Your task to perform on an android device: Search for "usb-c to usb-b" on bestbuy.com, select the first entry, and add it to the cart. Image 0: 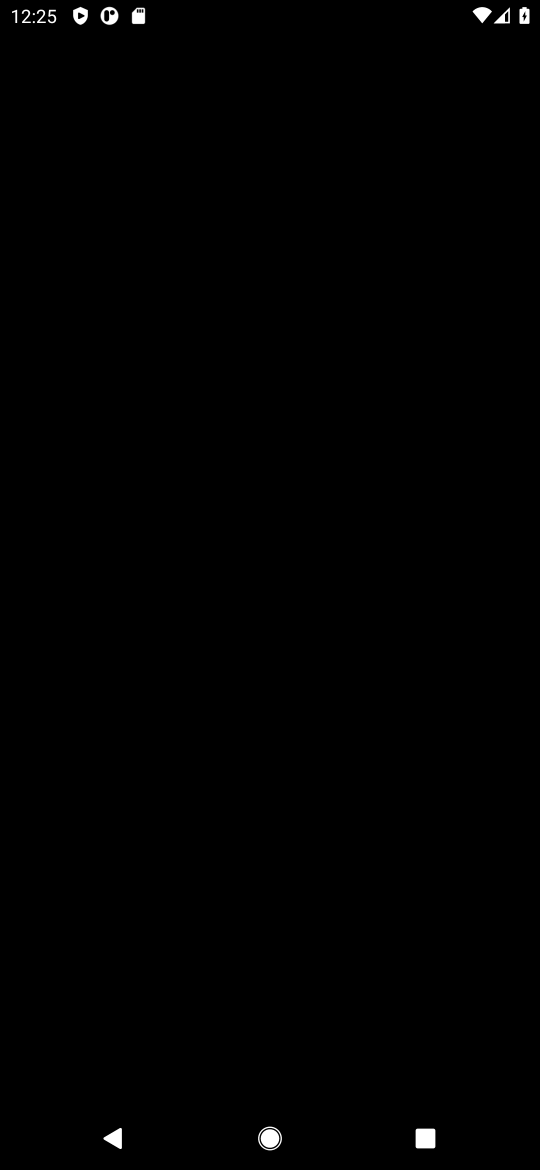
Step 0: press home button
Your task to perform on an android device: Search for "usb-c to usb-b" on bestbuy.com, select the first entry, and add it to the cart. Image 1: 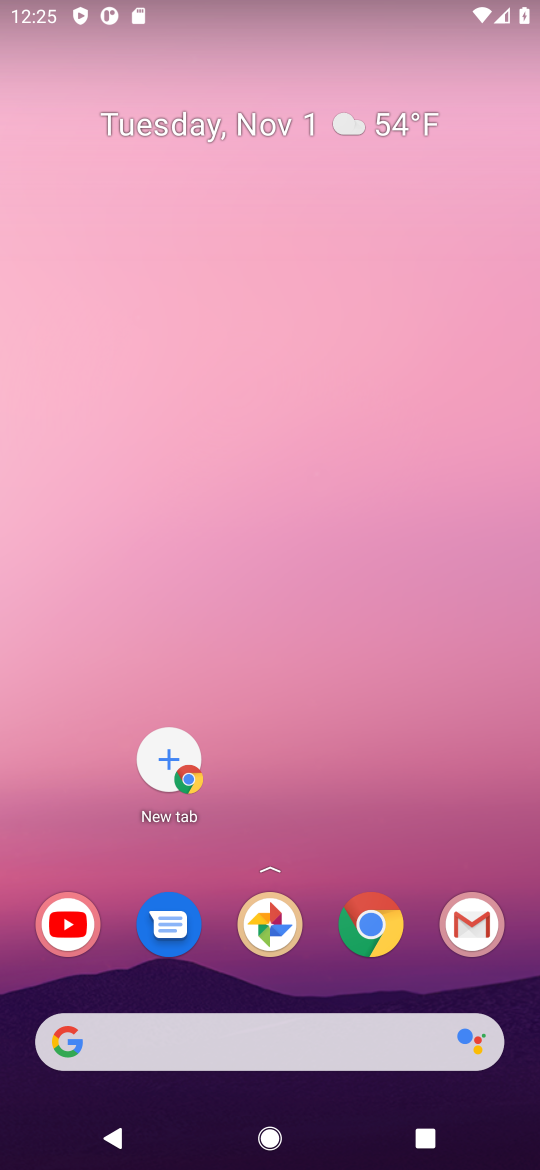
Step 1: click (388, 920)
Your task to perform on an android device: Search for "usb-c to usb-b" on bestbuy.com, select the first entry, and add it to the cart. Image 2: 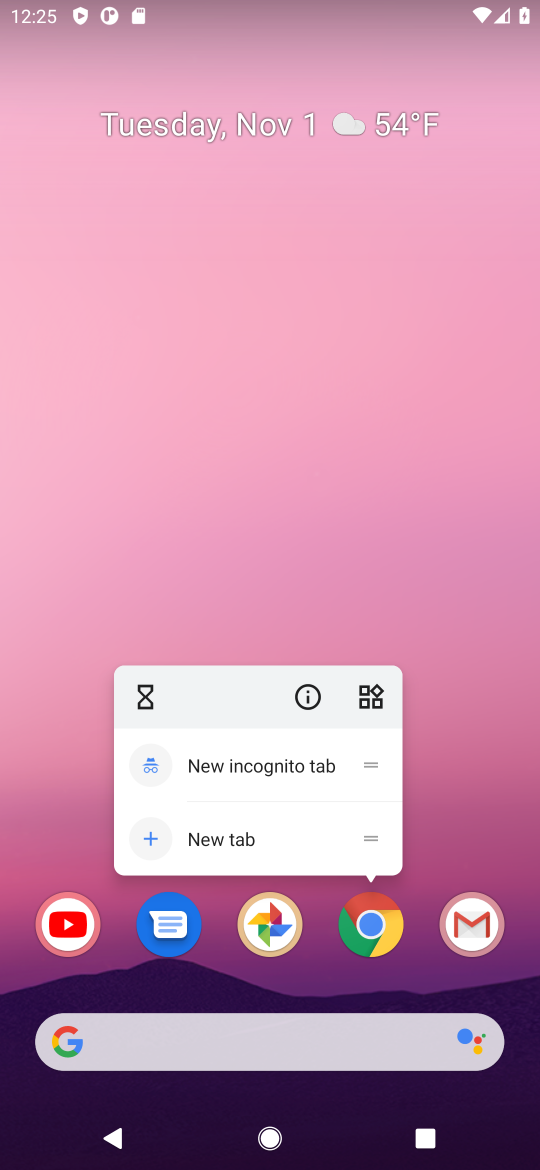
Step 2: click (385, 916)
Your task to perform on an android device: Search for "usb-c to usb-b" on bestbuy.com, select the first entry, and add it to the cart. Image 3: 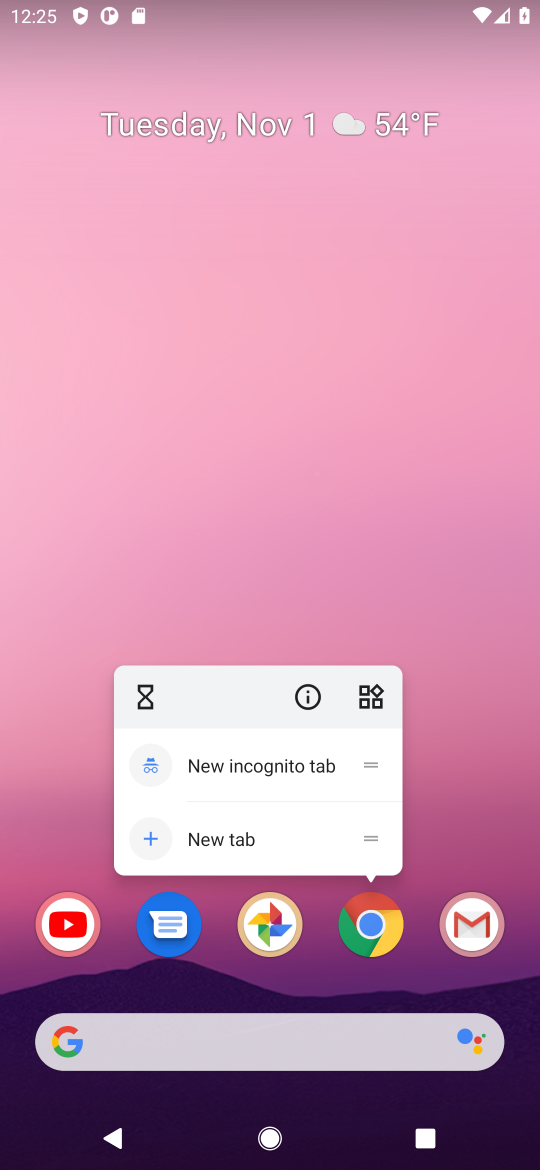
Step 3: click (377, 926)
Your task to perform on an android device: Search for "usb-c to usb-b" on bestbuy.com, select the first entry, and add it to the cart. Image 4: 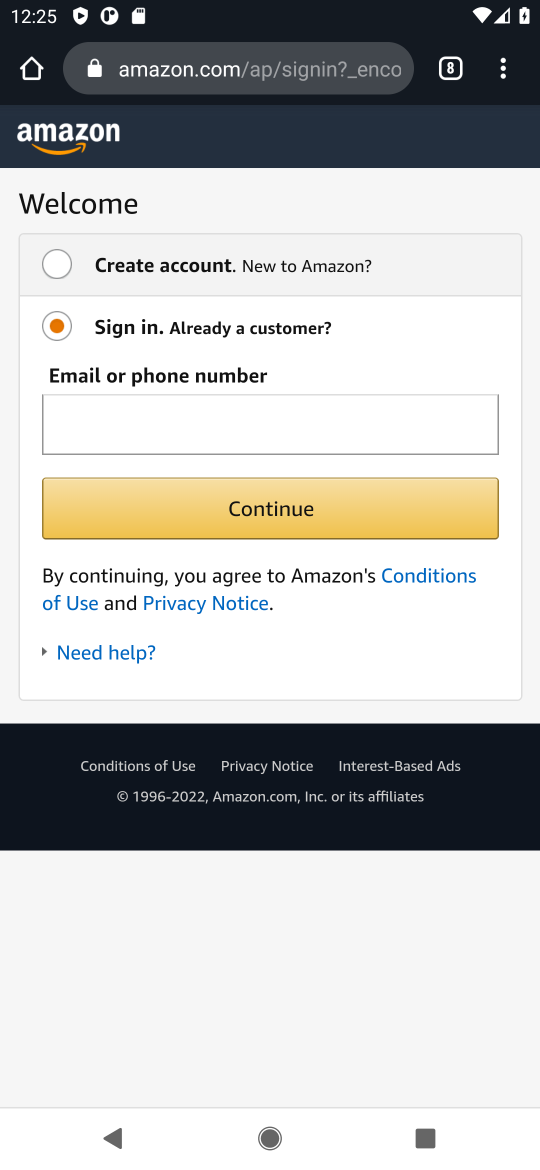
Step 4: click (160, 85)
Your task to perform on an android device: Search for "usb-c to usb-b" on bestbuy.com, select the first entry, and add it to the cart. Image 5: 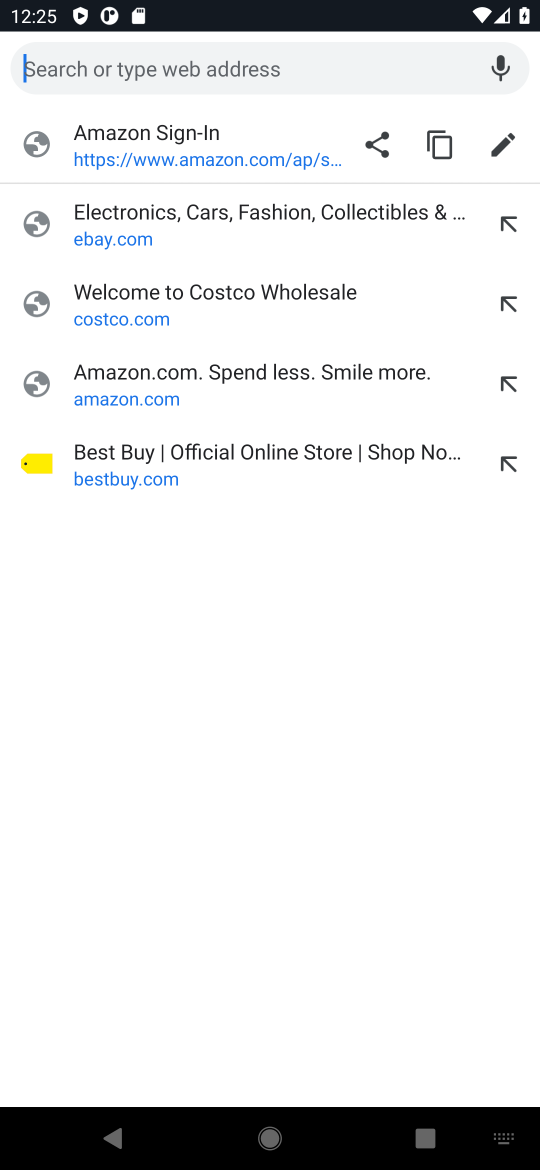
Step 5: click (79, 455)
Your task to perform on an android device: Search for "usb-c to usb-b" on bestbuy.com, select the first entry, and add it to the cart. Image 6: 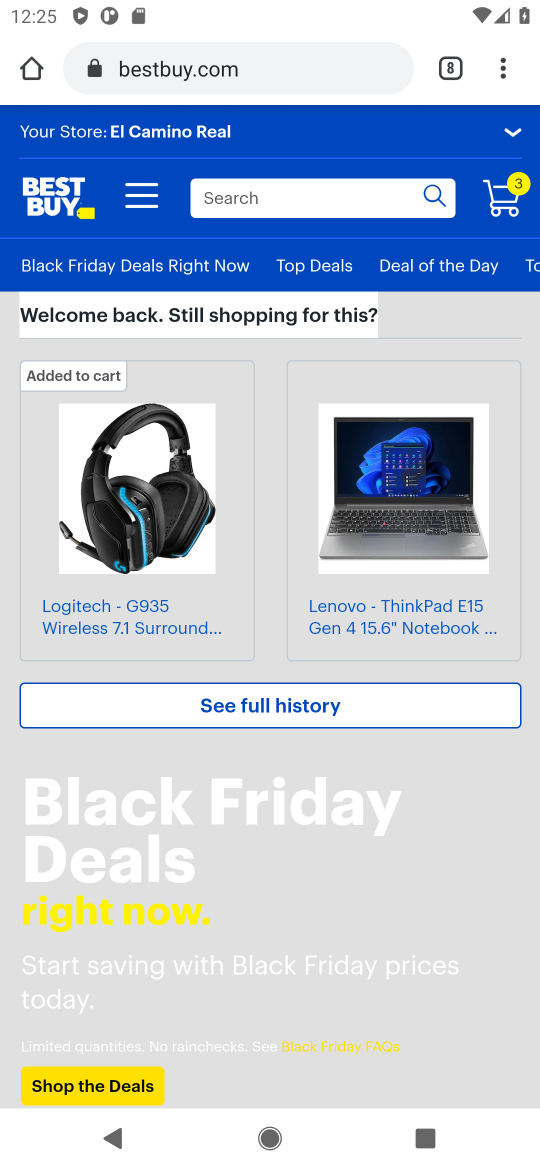
Step 6: click (290, 192)
Your task to perform on an android device: Search for "usb-c to usb-b" on bestbuy.com, select the first entry, and add it to the cart. Image 7: 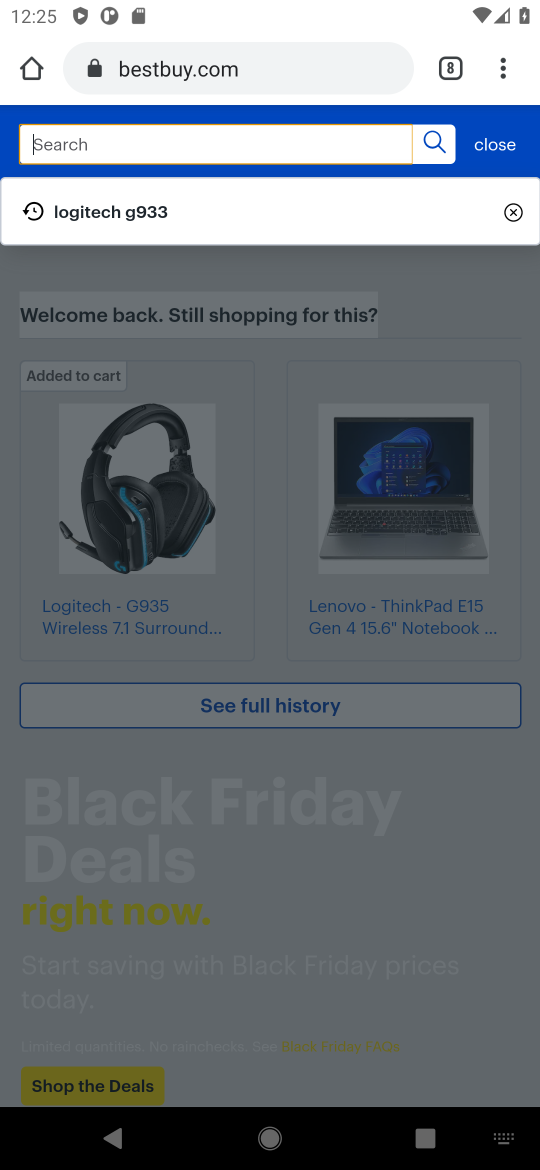
Step 7: type "usb-c to usb b on"
Your task to perform on an android device: Search for "usb-c to usb-b" on bestbuy.com, select the first entry, and add it to the cart. Image 8: 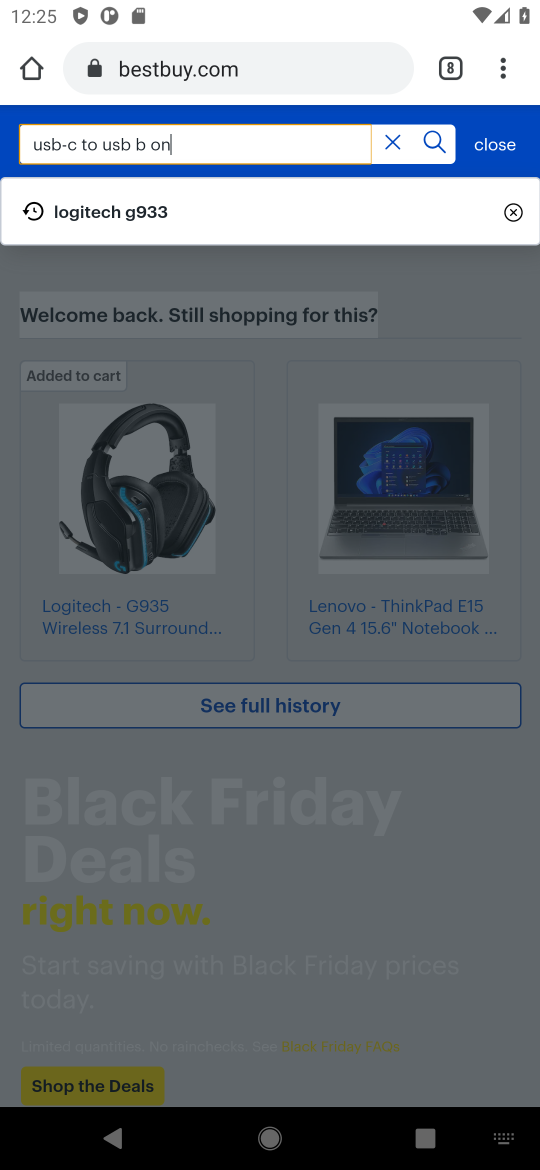
Step 8: type ""
Your task to perform on an android device: Search for "usb-c to usb-b" on bestbuy.com, select the first entry, and add it to the cart. Image 9: 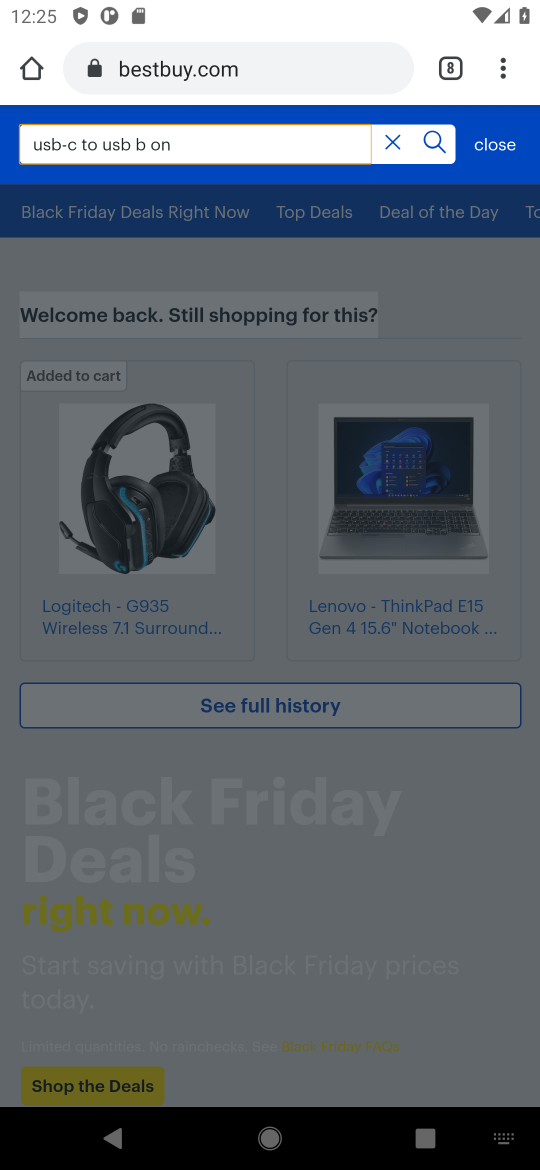
Step 9: click (442, 135)
Your task to perform on an android device: Search for "usb-c to usb-b" on bestbuy.com, select the first entry, and add it to the cart. Image 10: 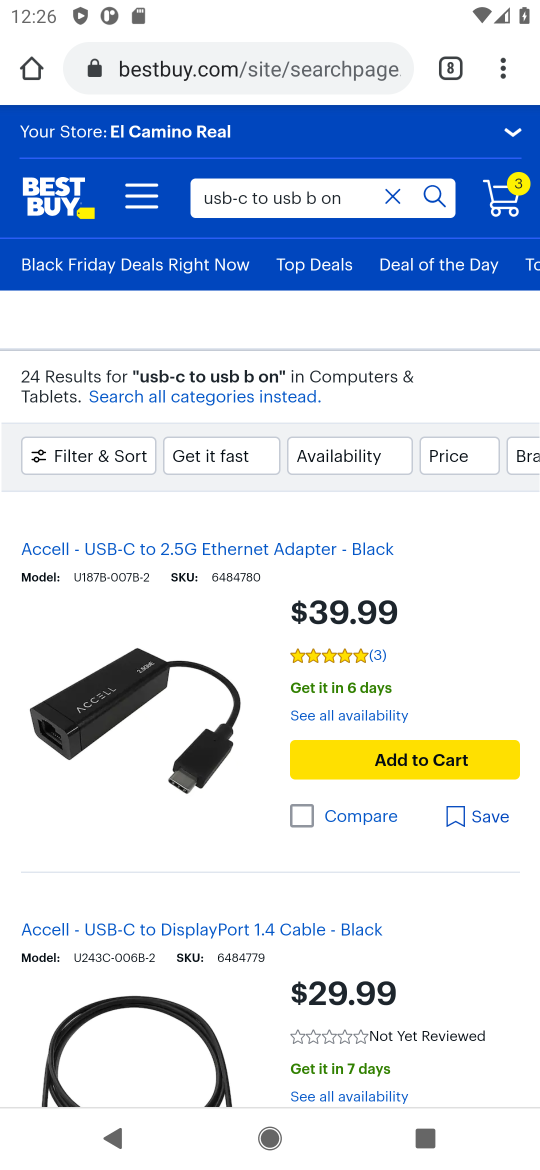
Step 10: drag from (137, 703) to (350, 178)
Your task to perform on an android device: Search for "usb-c to usb-b" on bestbuy.com, select the first entry, and add it to the cart. Image 11: 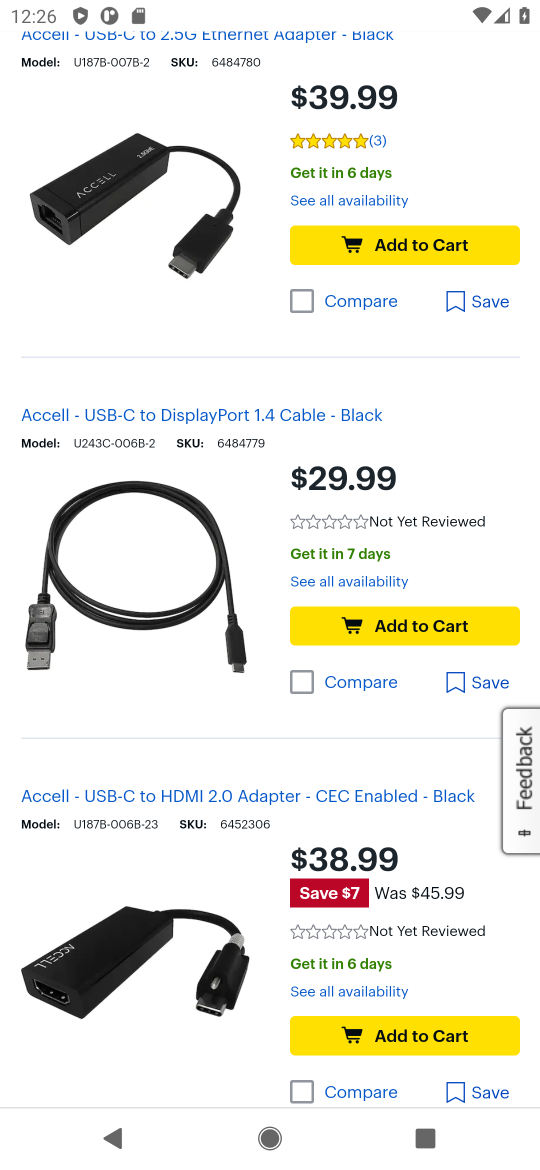
Step 11: drag from (418, 360) to (438, 157)
Your task to perform on an android device: Search for "usb-c to usb-b" on bestbuy.com, select the first entry, and add it to the cart. Image 12: 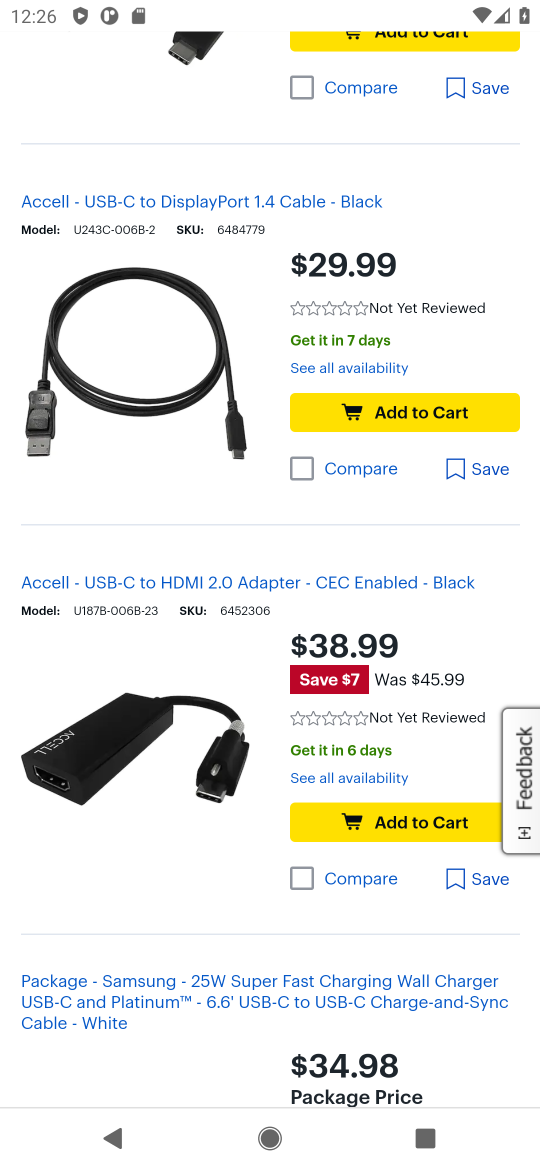
Step 12: drag from (184, 815) to (244, 349)
Your task to perform on an android device: Search for "usb-c to usb-b" on bestbuy.com, select the first entry, and add it to the cart. Image 13: 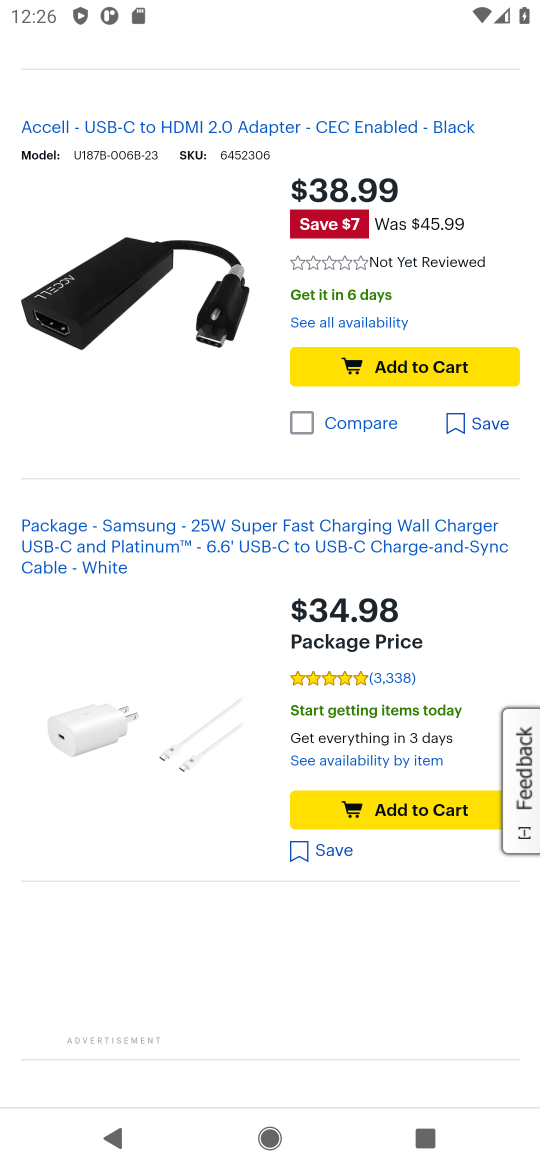
Step 13: drag from (212, 841) to (216, 512)
Your task to perform on an android device: Search for "usb-c to usb-b" on bestbuy.com, select the first entry, and add it to the cart. Image 14: 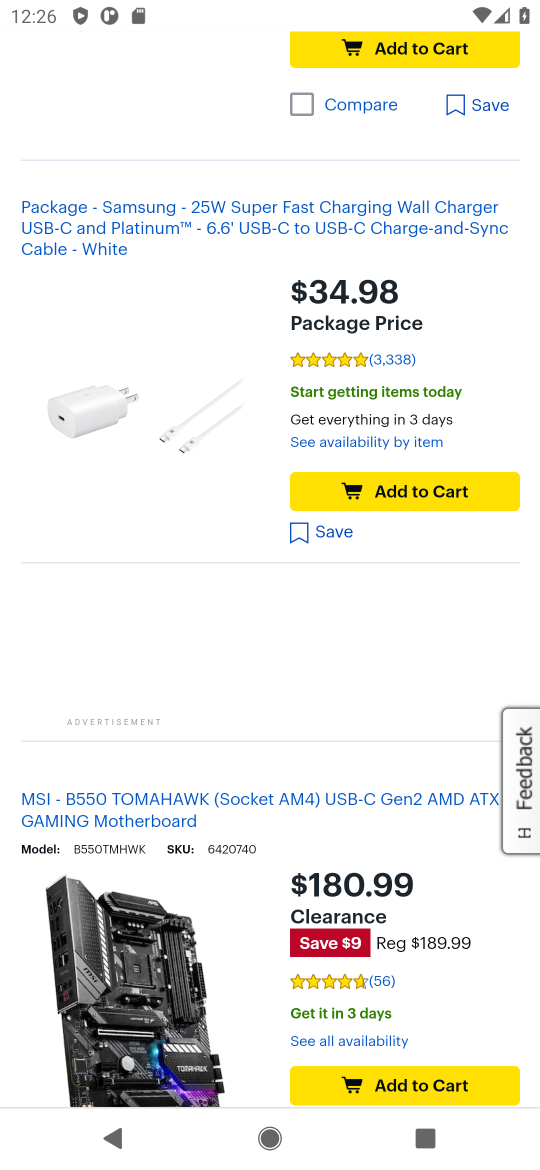
Step 14: drag from (255, 933) to (322, 481)
Your task to perform on an android device: Search for "usb-c to usb-b" on bestbuy.com, select the first entry, and add it to the cart. Image 15: 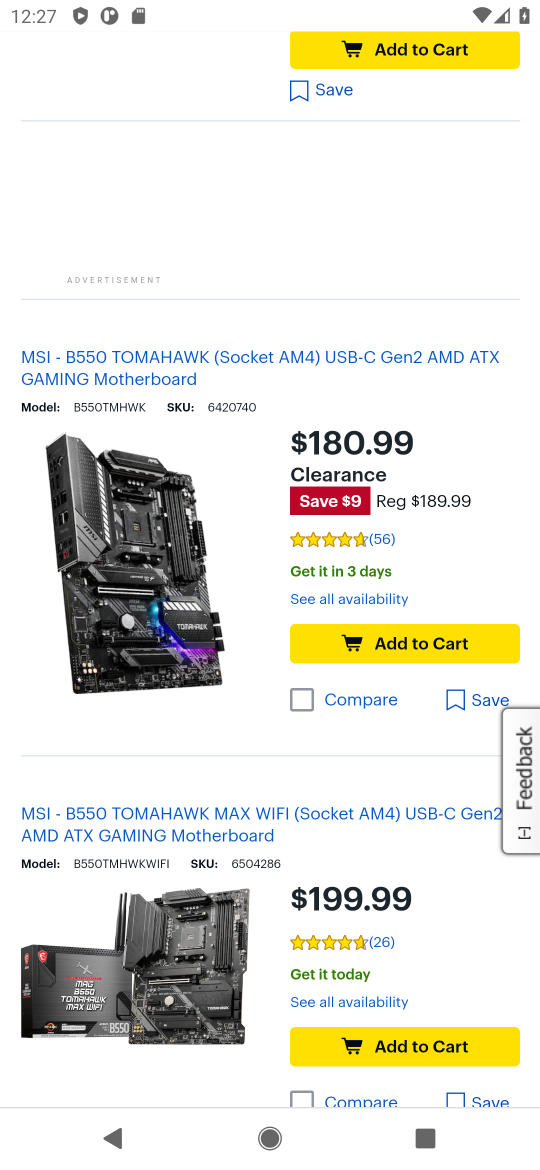
Step 15: drag from (236, 459) to (223, 1060)
Your task to perform on an android device: Search for "usb-c to usb-b" on bestbuy.com, select the first entry, and add it to the cart. Image 16: 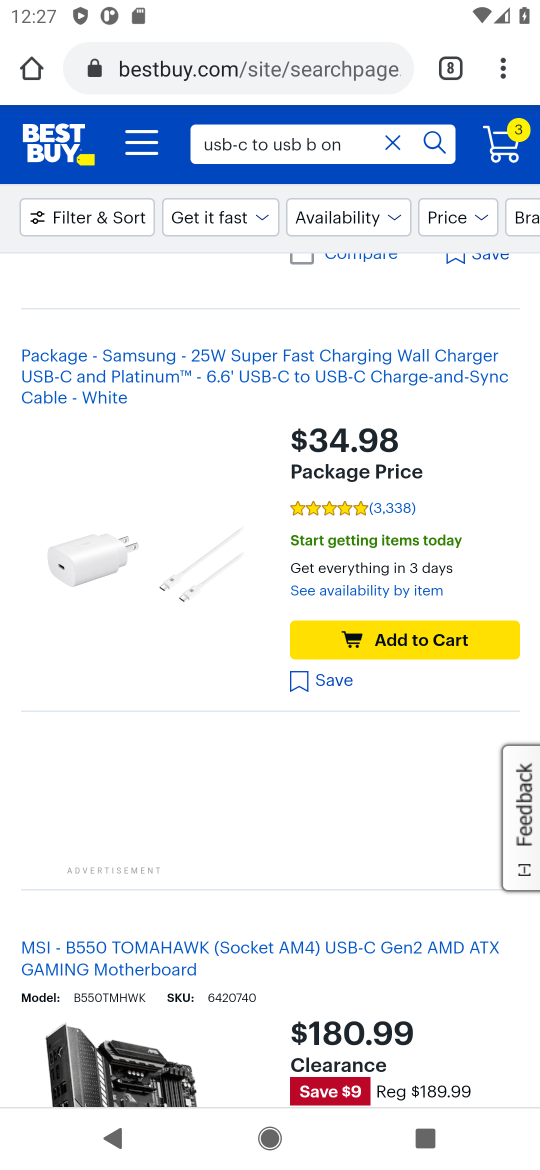
Step 16: click (222, 519)
Your task to perform on an android device: Search for "usb-c to usb-b" on bestbuy.com, select the first entry, and add it to the cart. Image 17: 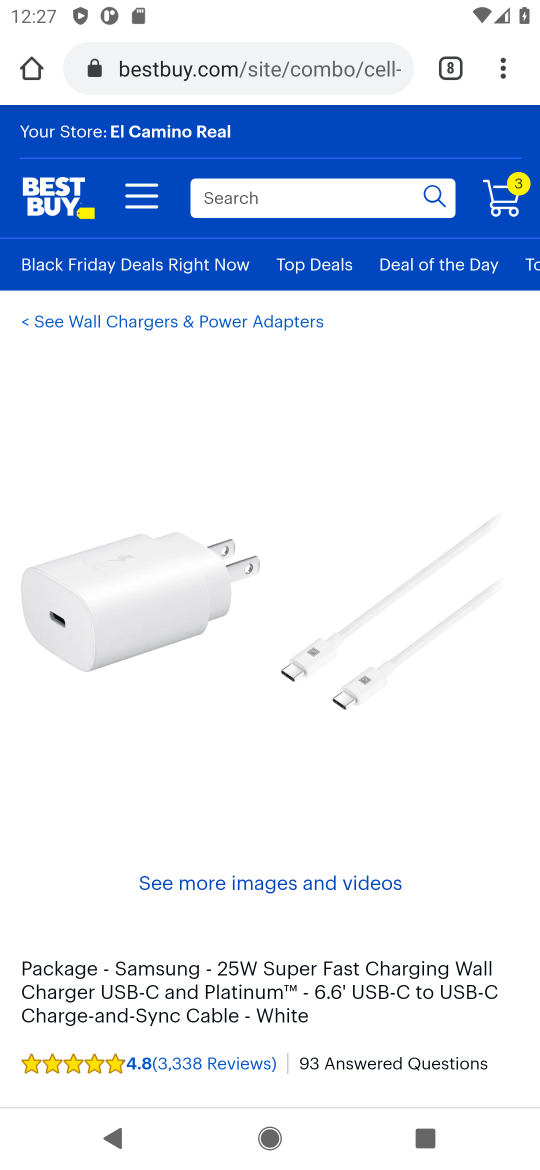
Step 17: drag from (275, 872) to (310, 535)
Your task to perform on an android device: Search for "usb-c to usb-b" on bestbuy.com, select the first entry, and add it to the cart. Image 18: 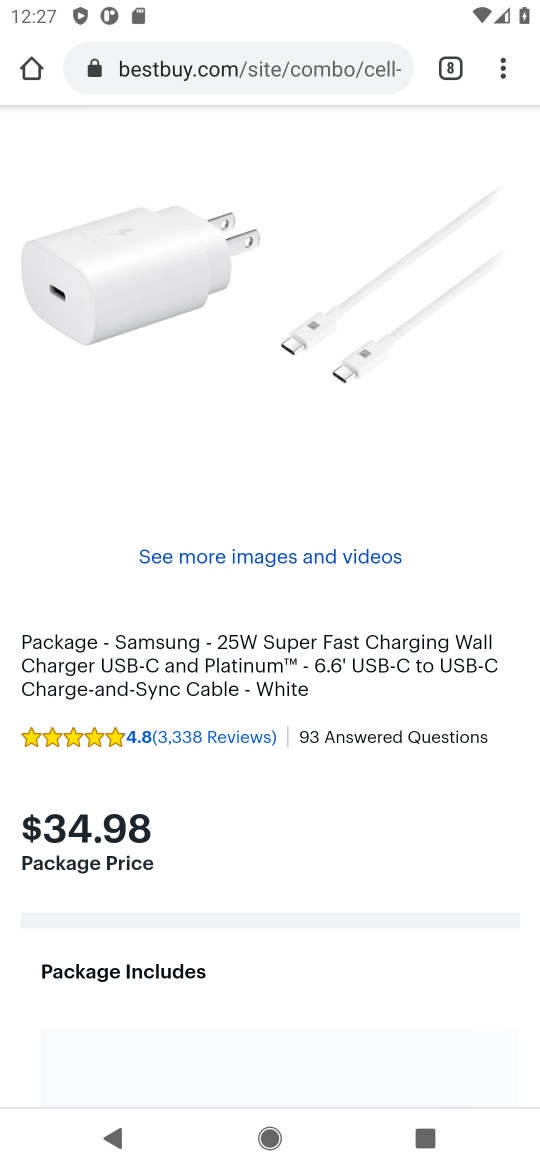
Step 18: drag from (309, 908) to (358, 553)
Your task to perform on an android device: Search for "usb-c to usb-b" on bestbuy.com, select the first entry, and add it to the cart. Image 19: 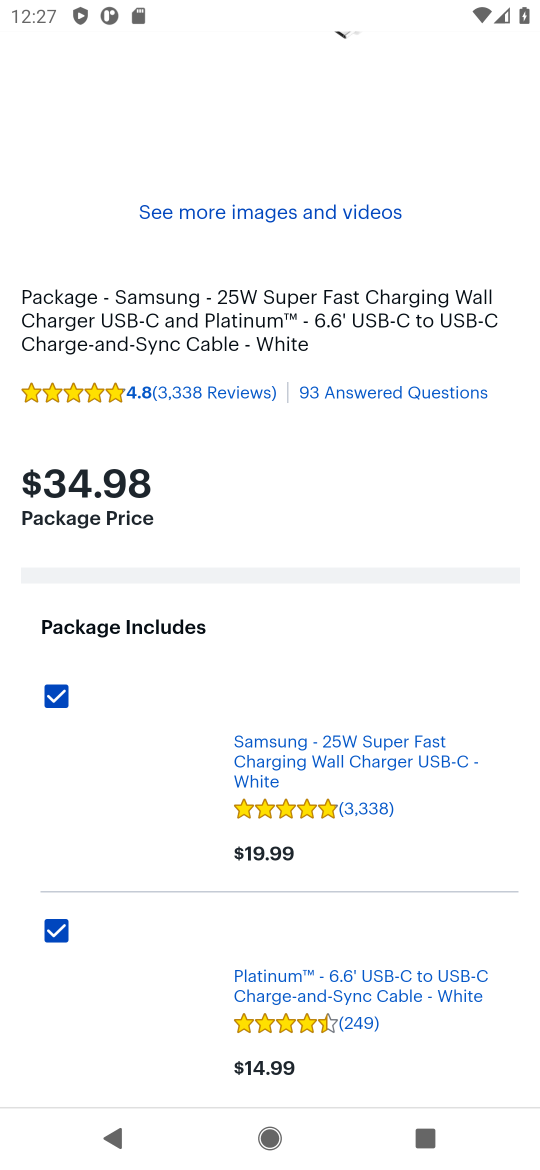
Step 19: drag from (334, 803) to (343, 476)
Your task to perform on an android device: Search for "usb-c to usb-b" on bestbuy.com, select the first entry, and add it to the cart. Image 20: 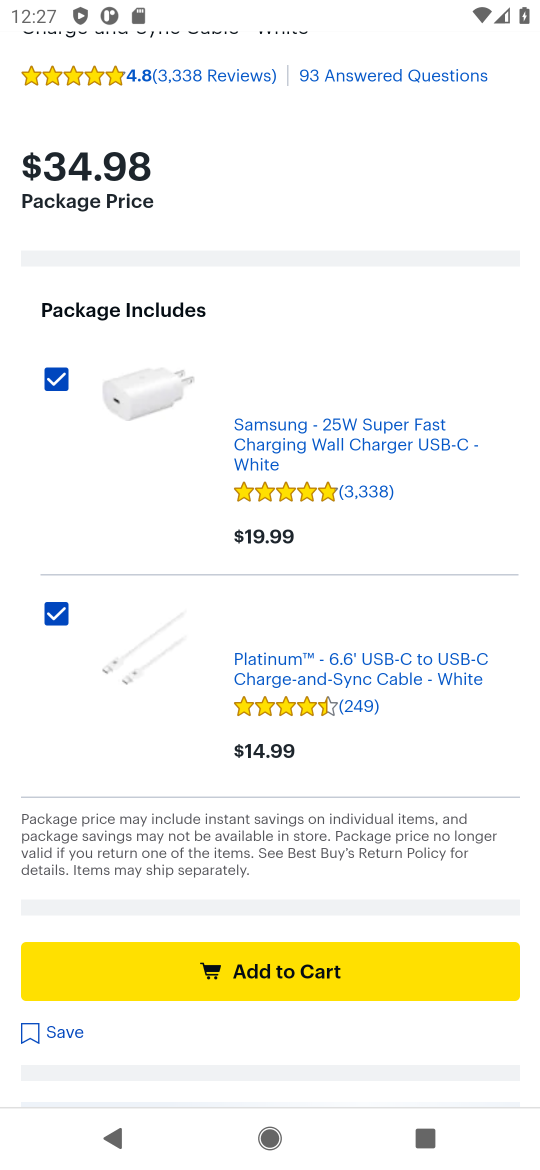
Step 20: click (304, 962)
Your task to perform on an android device: Search for "usb-c to usb-b" on bestbuy.com, select the first entry, and add it to the cart. Image 21: 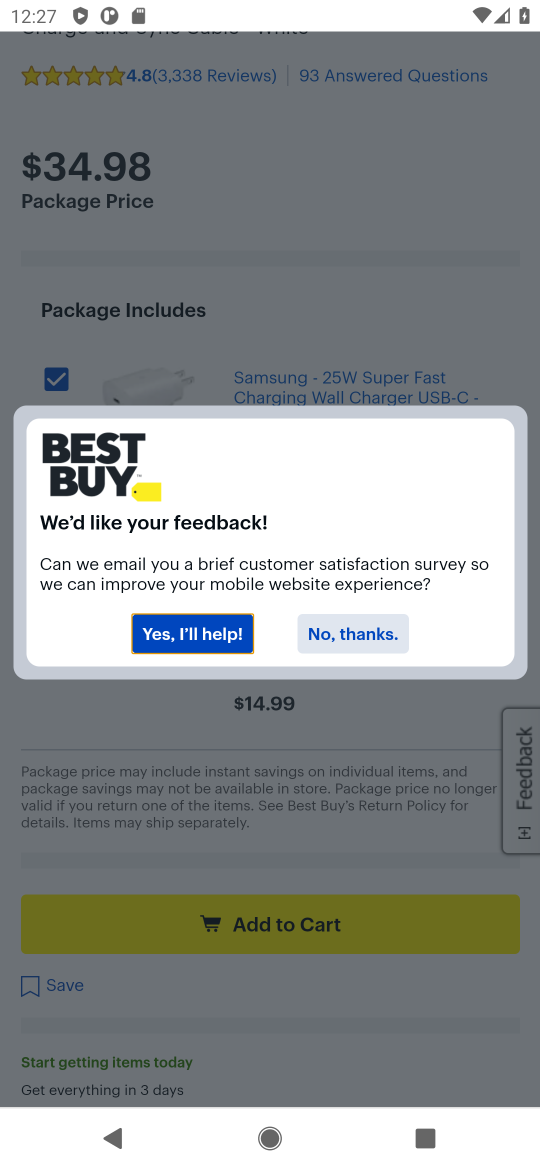
Step 21: click (377, 630)
Your task to perform on an android device: Search for "usb-c to usb-b" on bestbuy.com, select the first entry, and add it to the cart. Image 22: 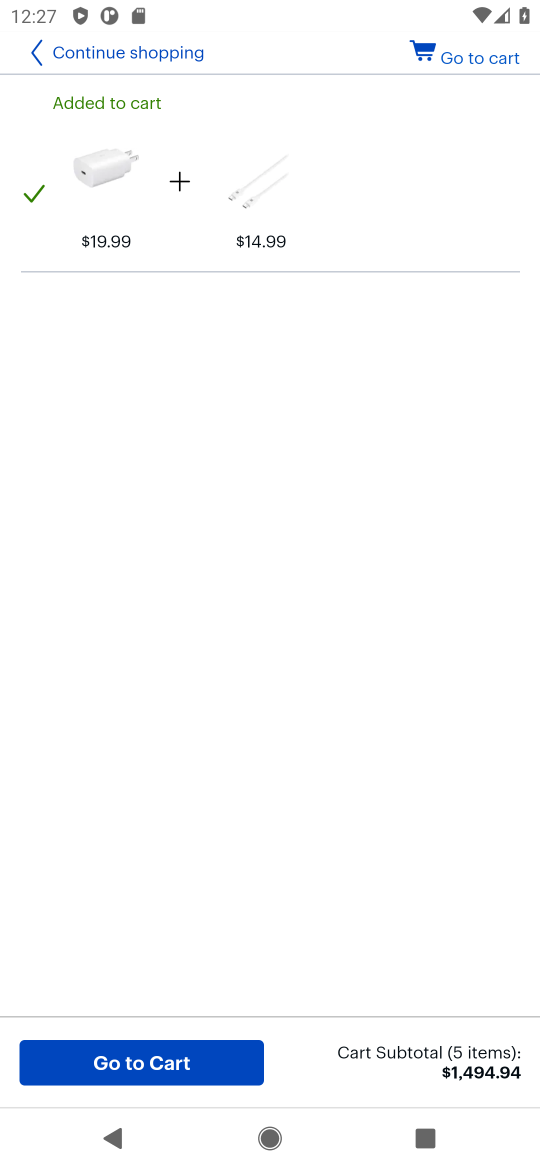
Step 22: click (170, 1068)
Your task to perform on an android device: Search for "usb-c to usb-b" on bestbuy.com, select the first entry, and add it to the cart. Image 23: 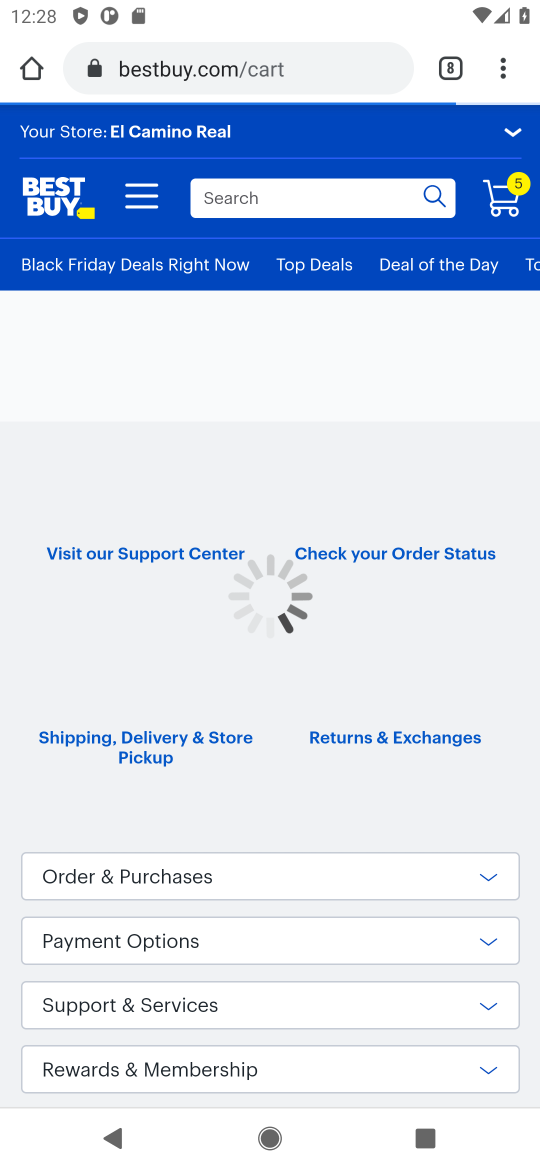
Step 23: task complete